Your task to perform on an android device: View the shopping cart on ebay. Image 0: 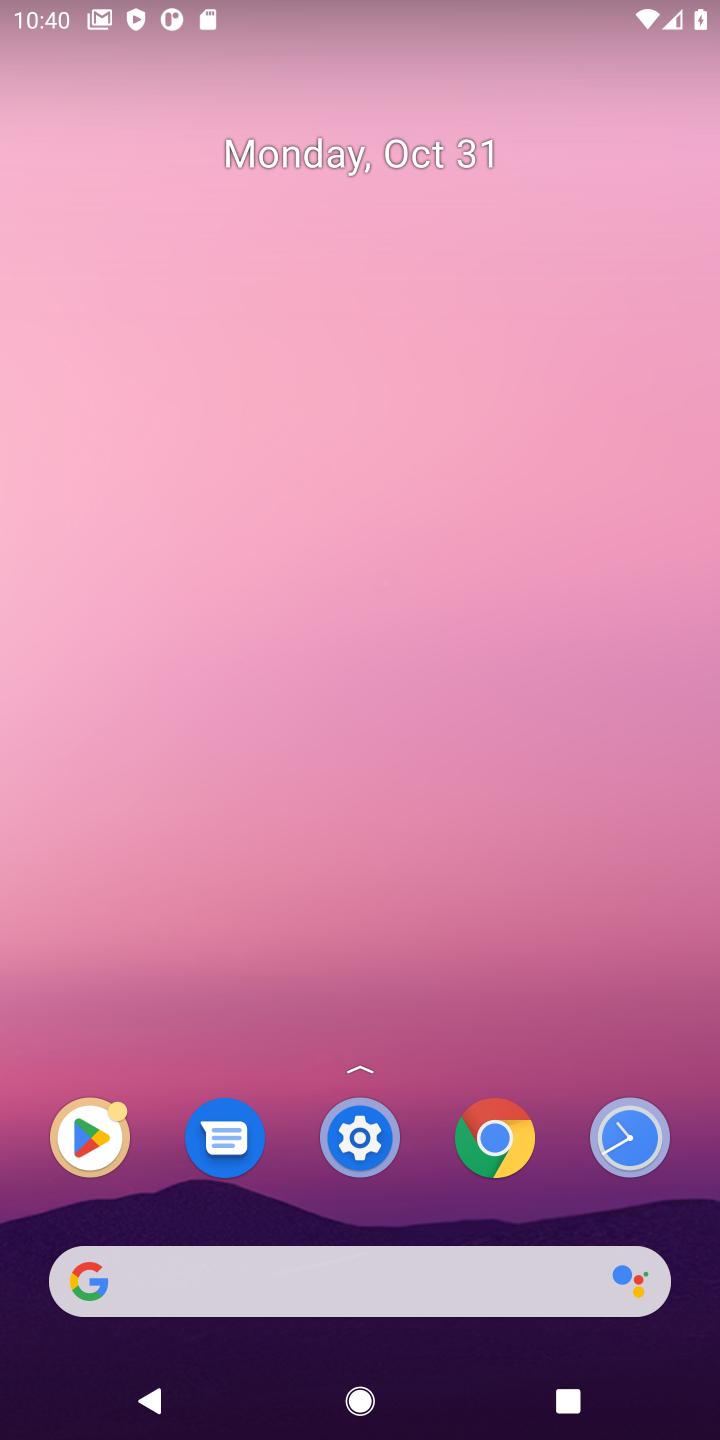
Step 0: click (496, 1152)
Your task to perform on an android device: View the shopping cart on ebay. Image 1: 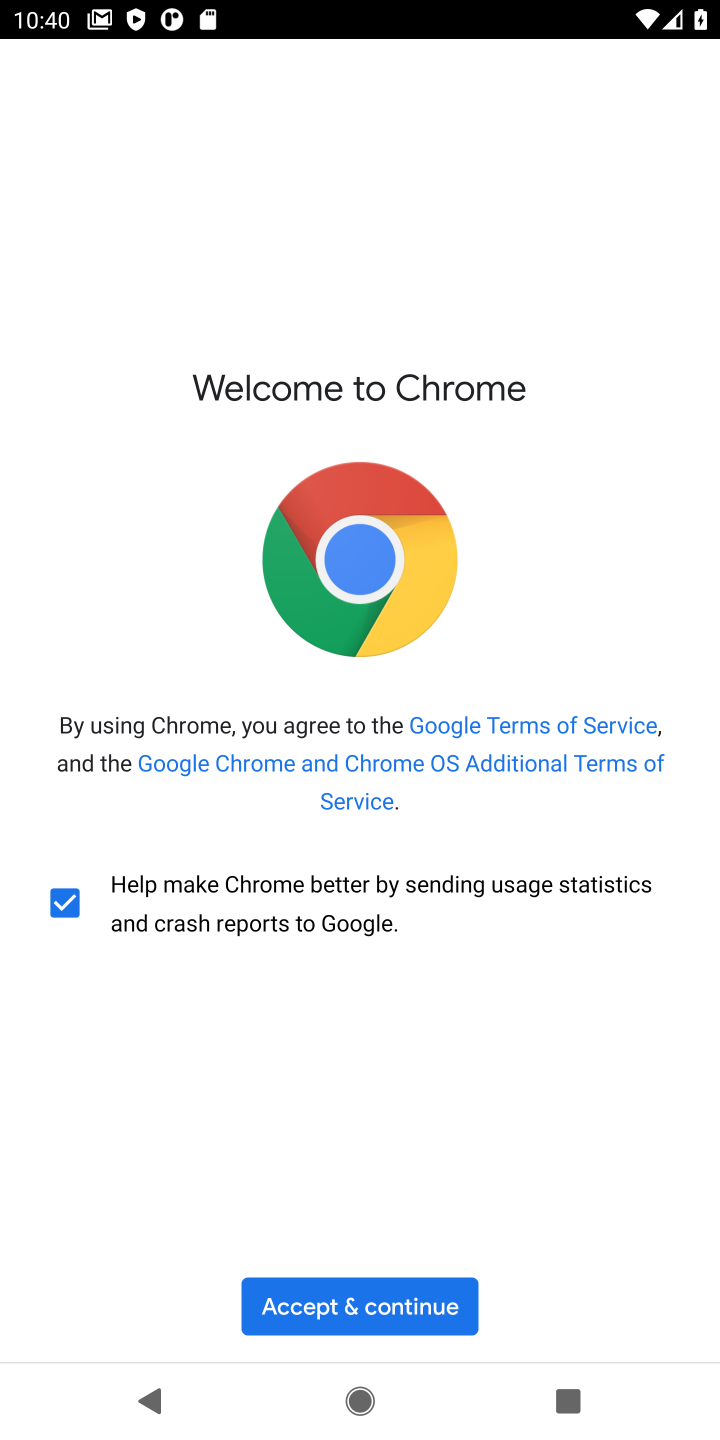
Step 1: click (346, 1304)
Your task to perform on an android device: View the shopping cart on ebay. Image 2: 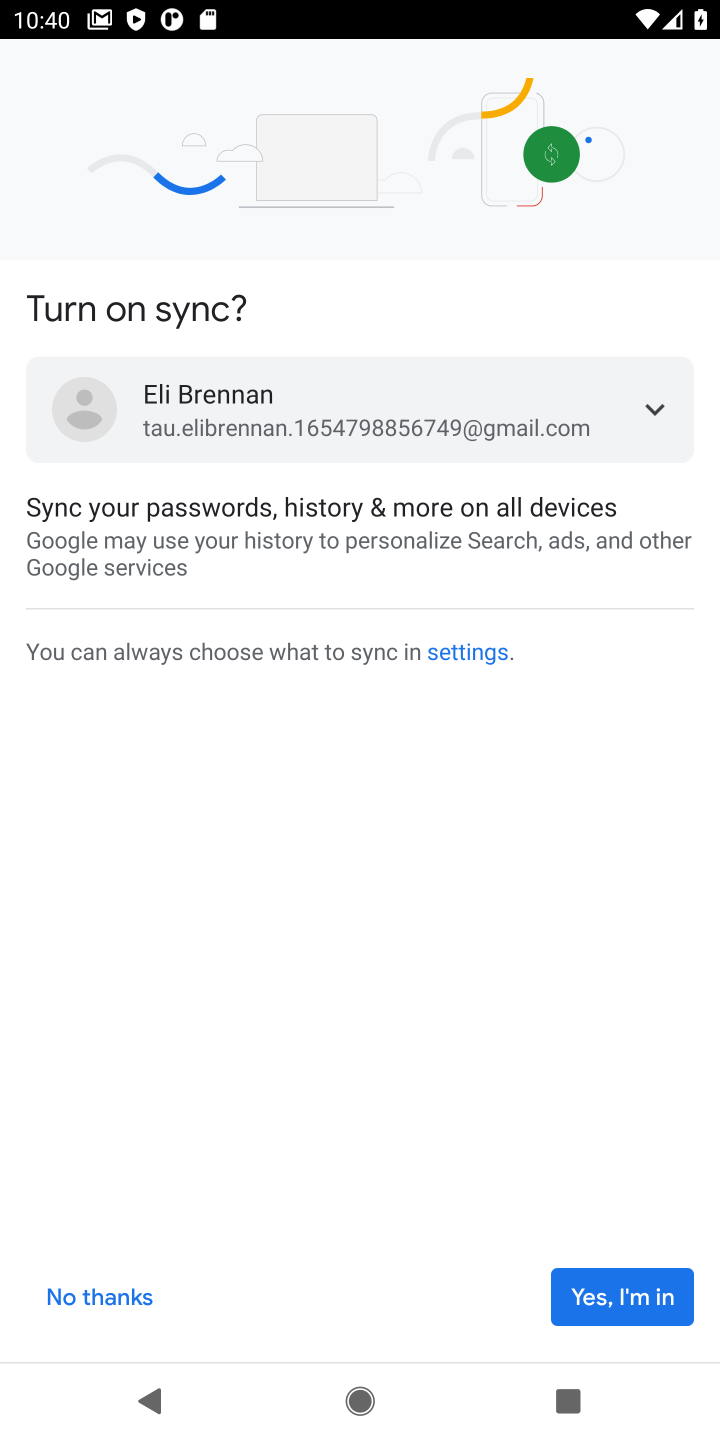
Step 2: click (610, 1292)
Your task to perform on an android device: View the shopping cart on ebay. Image 3: 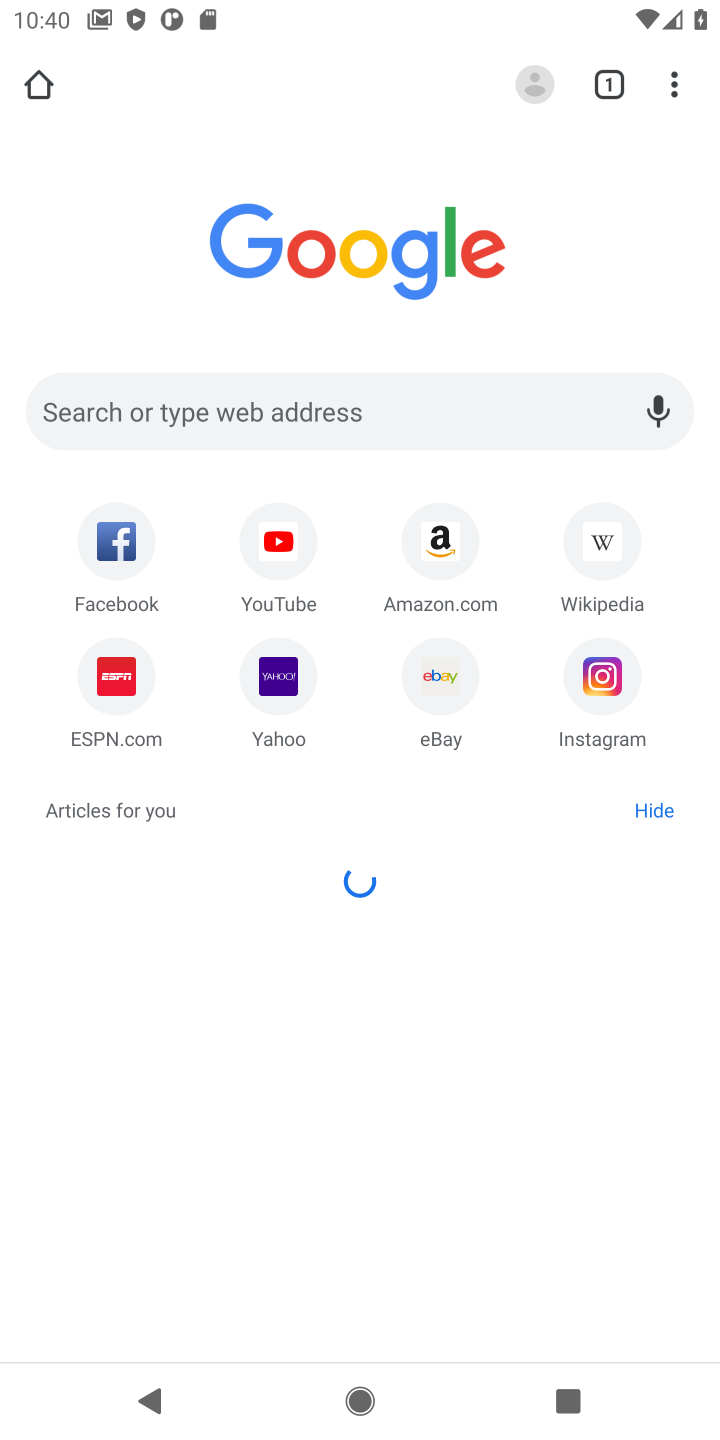
Step 3: click (422, 694)
Your task to perform on an android device: View the shopping cart on ebay. Image 4: 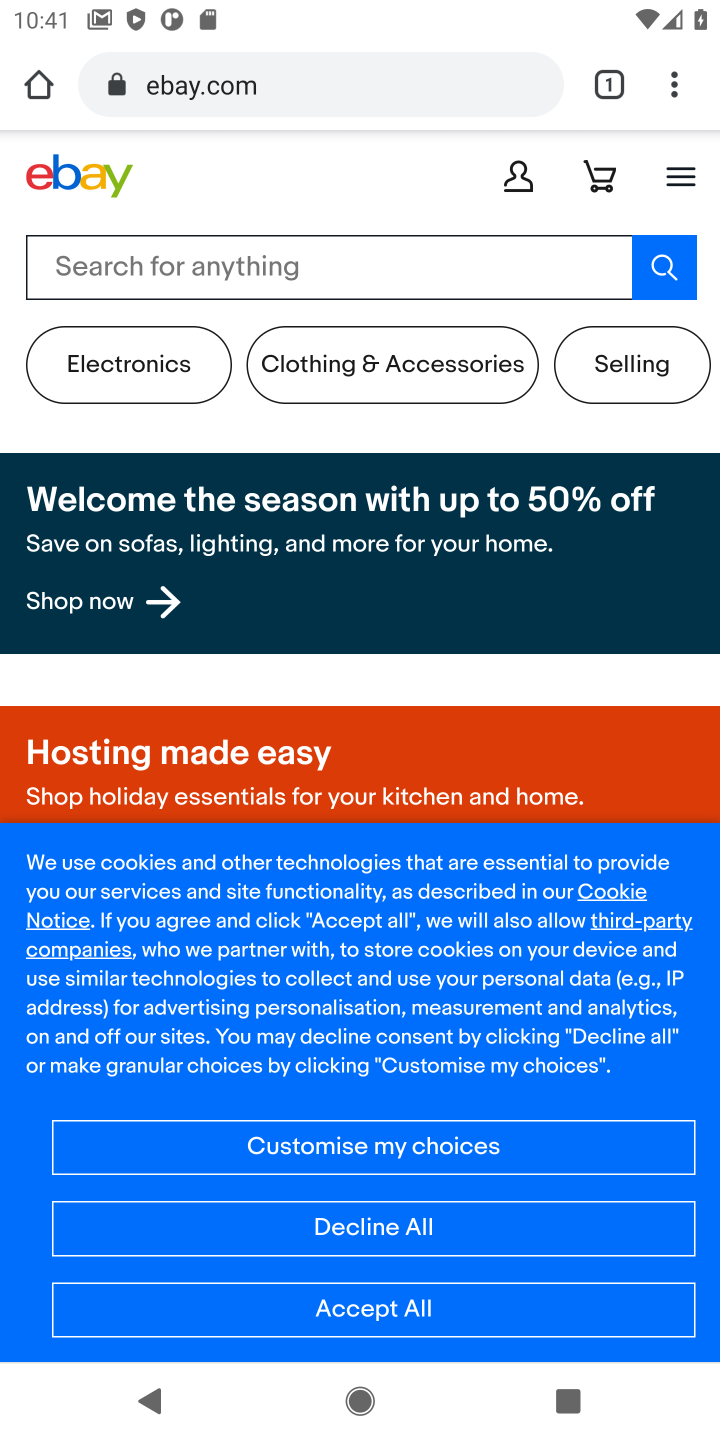
Step 4: click (327, 1312)
Your task to perform on an android device: View the shopping cart on ebay. Image 5: 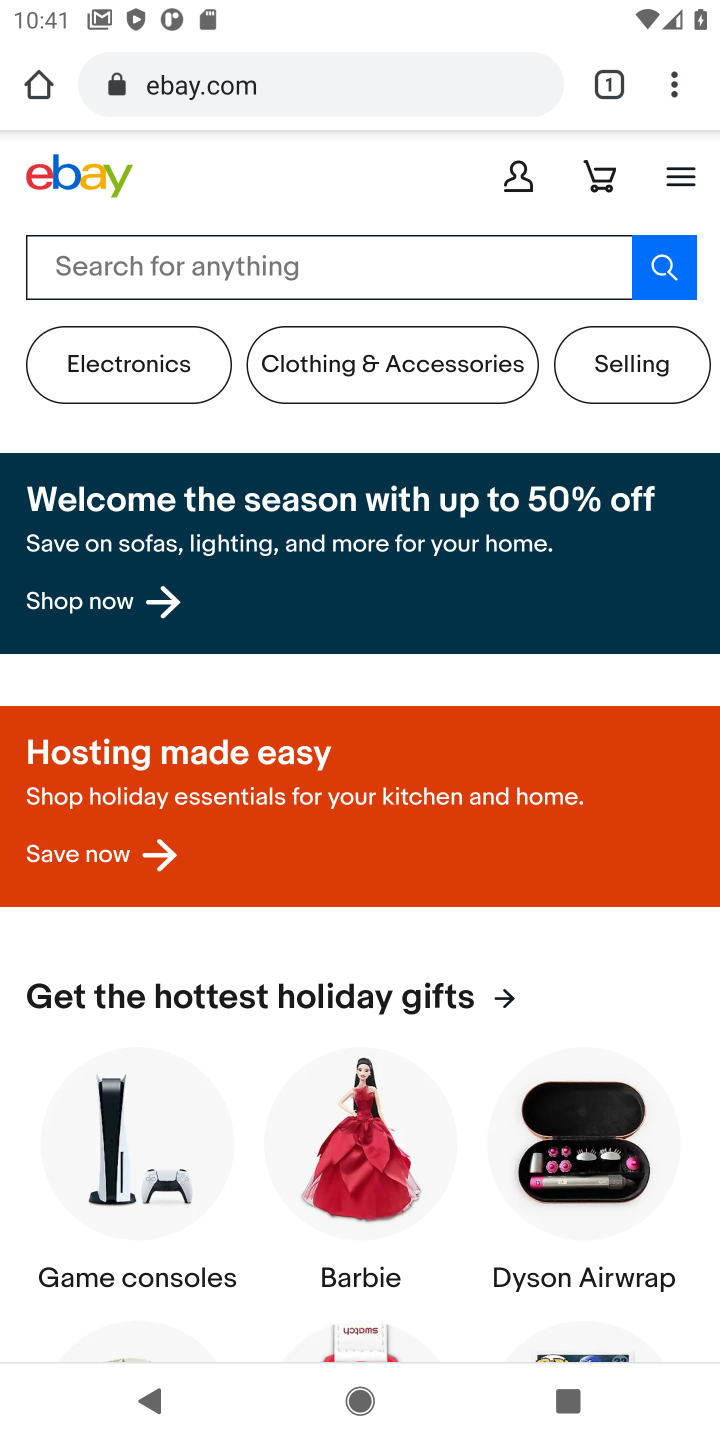
Step 5: click (604, 168)
Your task to perform on an android device: View the shopping cart on ebay. Image 6: 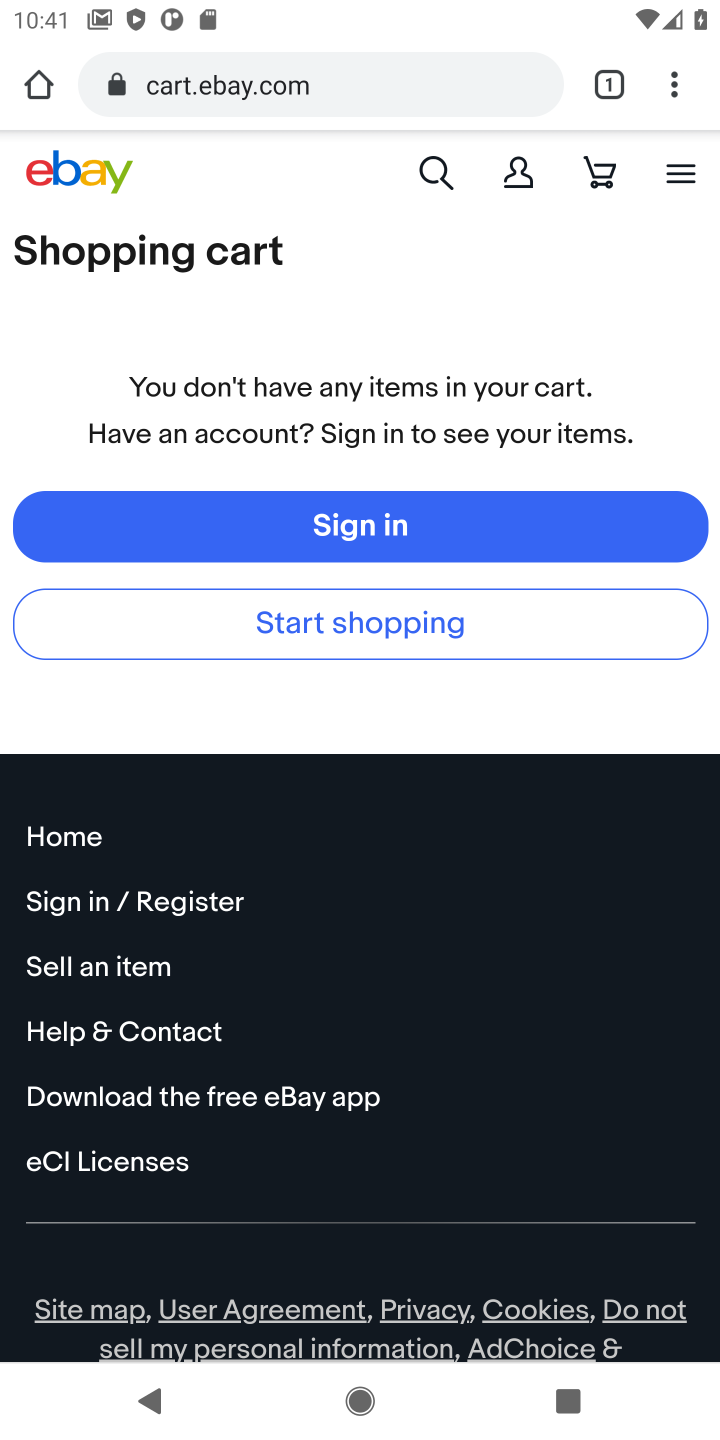
Step 6: task complete